Your task to perform on an android device: add a contact Image 0: 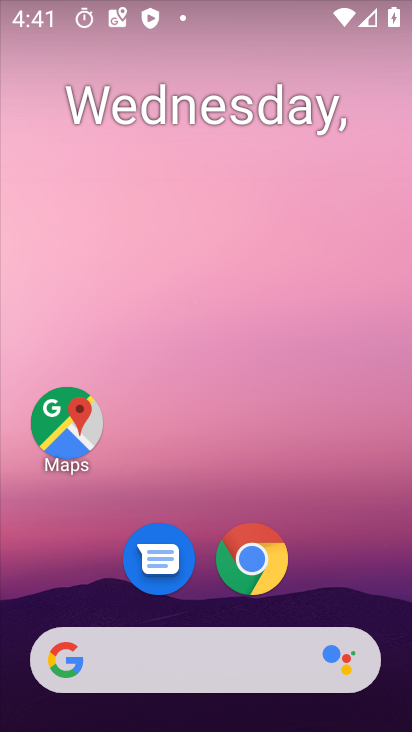
Step 0: drag from (350, 559) to (216, 53)
Your task to perform on an android device: add a contact Image 1: 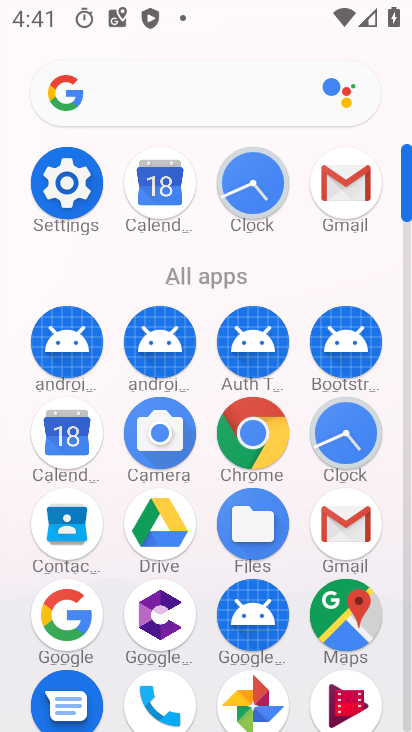
Step 1: click (49, 530)
Your task to perform on an android device: add a contact Image 2: 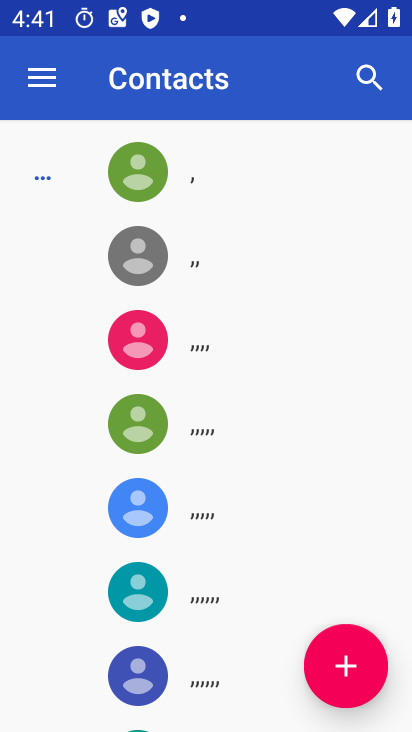
Step 2: click (337, 678)
Your task to perform on an android device: add a contact Image 3: 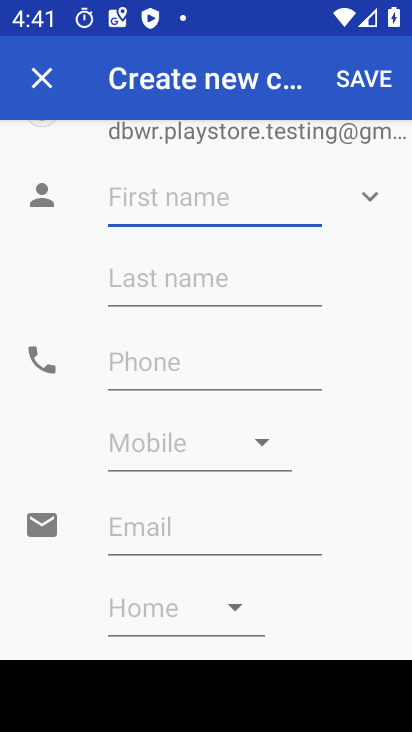
Step 3: type "gsgs"
Your task to perform on an android device: add a contact Image 4: 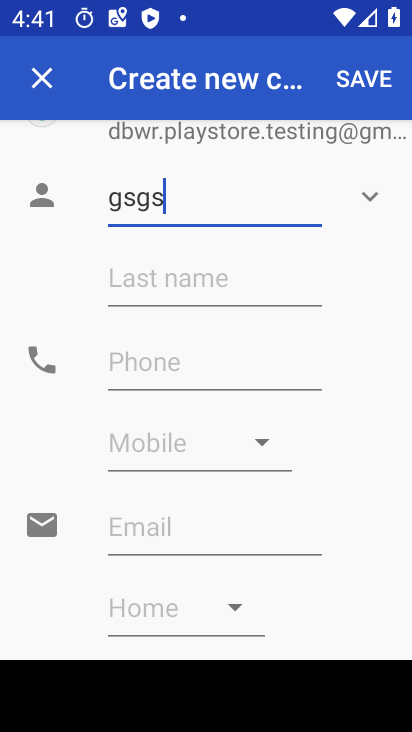
Step 4: type ""
Your task to perform on an android device: add a contact Image 5: 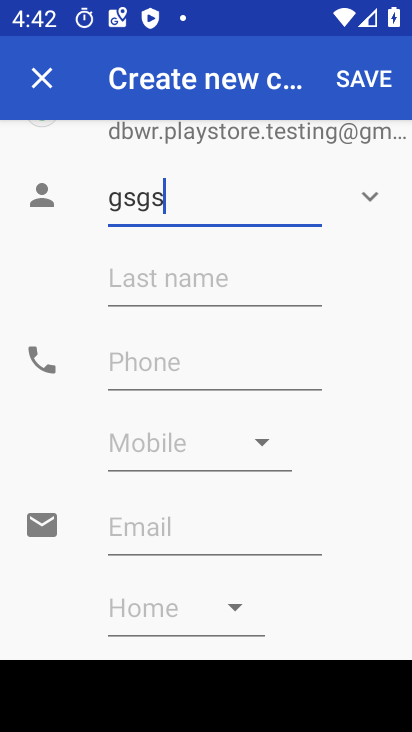
Step 5: click (285, 294)
Your task to perform on an android device: add a contact Image 6: 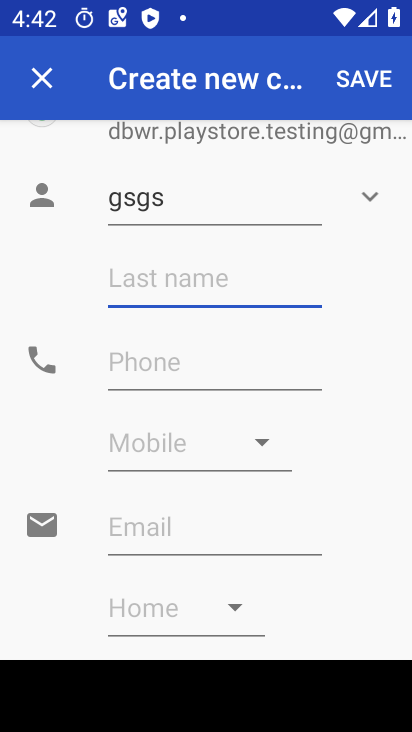
Step 6: type "efgsfgs"
Your task to perform on an android device: add a contact Image 7: 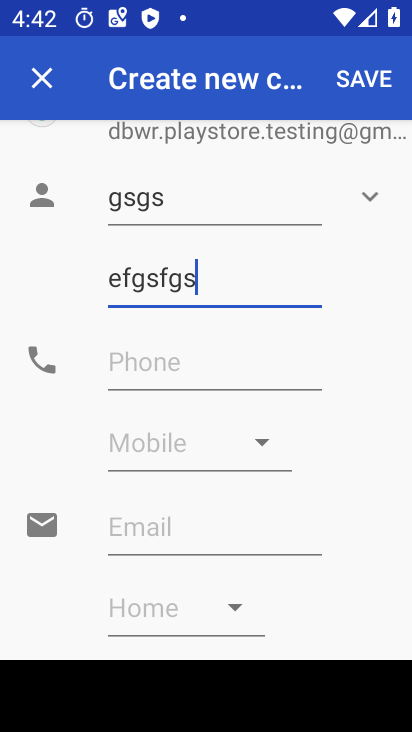
Step 7: type ""
Your task to perform on an android device: add a contact Image 8: 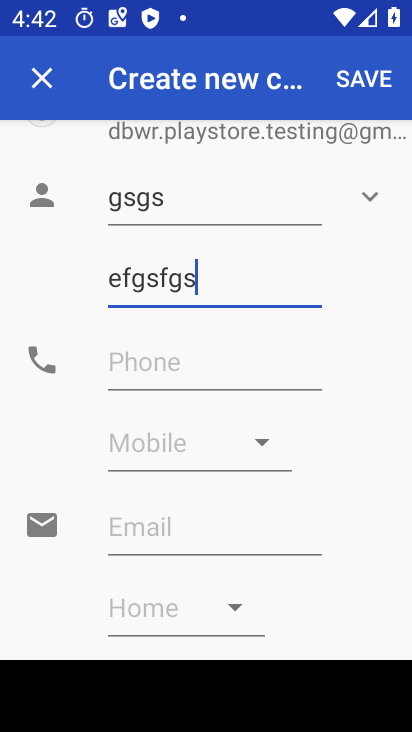
Step 8: click (279, 378)
Your task to perform on an android device: add a contact Image 9: 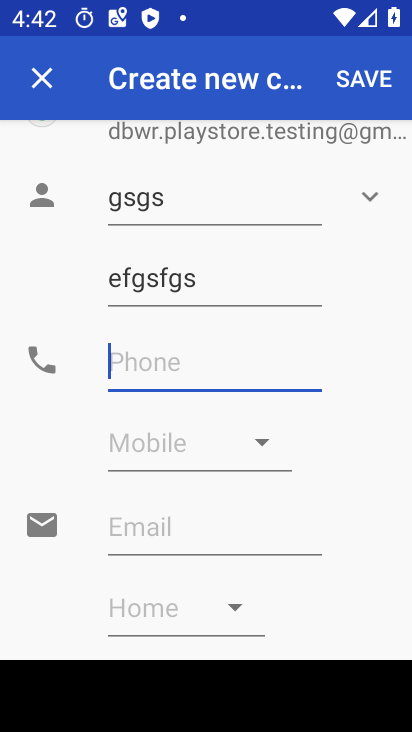
Step 9: type "5634563546"
Your task to perform on an android device: add a contact Image 10: 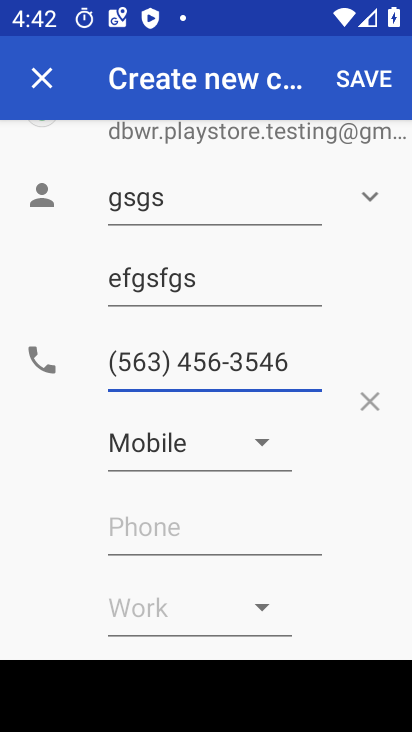
Step 10: task complete